Your task to perform on an android device: Open internet settings Image 0: 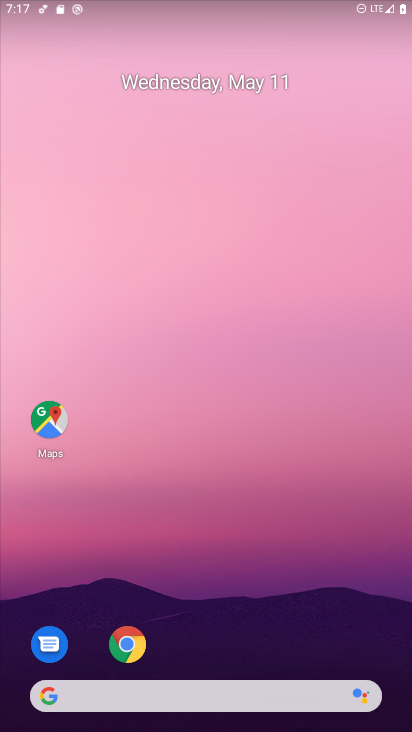
Step 0: drag from (239, 598) to (117, 62)
Your task to perform on an android device: Open internet settings Image 1: 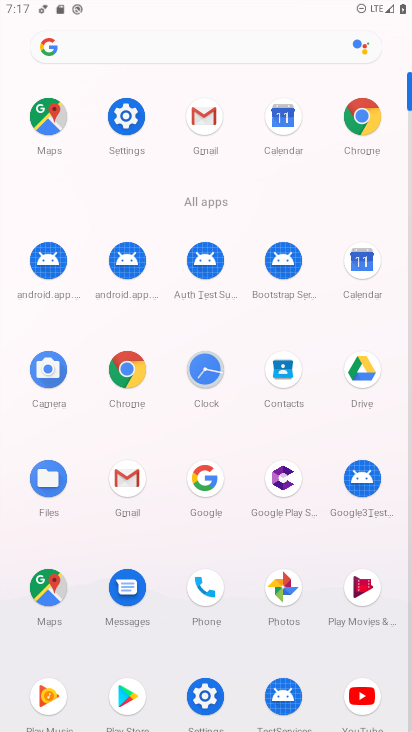
Step 1: click (116, 122)
Your task to perform on an android device: Open internet settings Image 2: 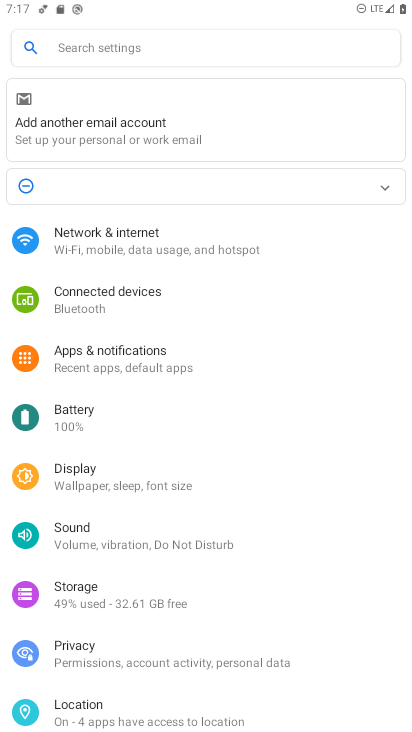
Step 2: click (98, 236)
Your task to perform on an android device: Open internet settings Image 3: 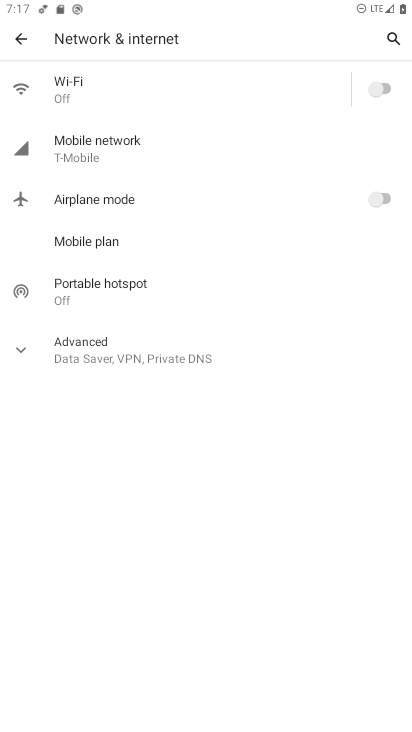
Step 3: task complete